Your task to perform on an android device: turn off sleep mode Image 0: 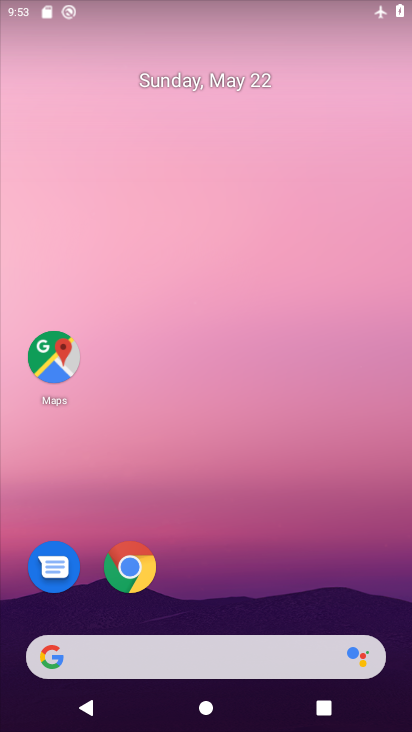
Step 0: press home button
Your task to perform on an android device: turn off sleep mode Image 1: 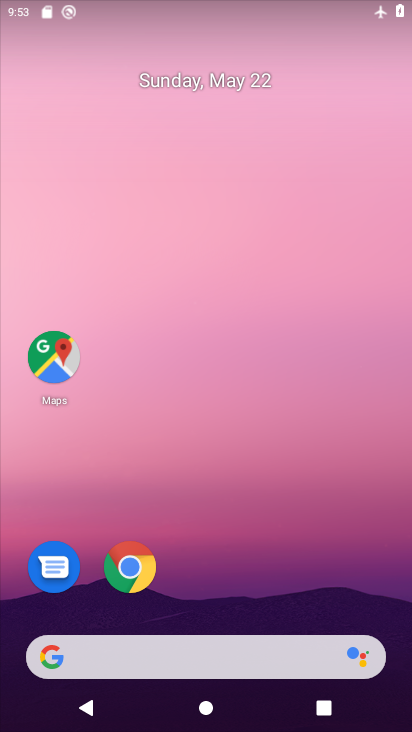
Step 1: drag from (215, 618) to (204, 51)
Your task to perform on an android device: turn off sleep mode Image 2: 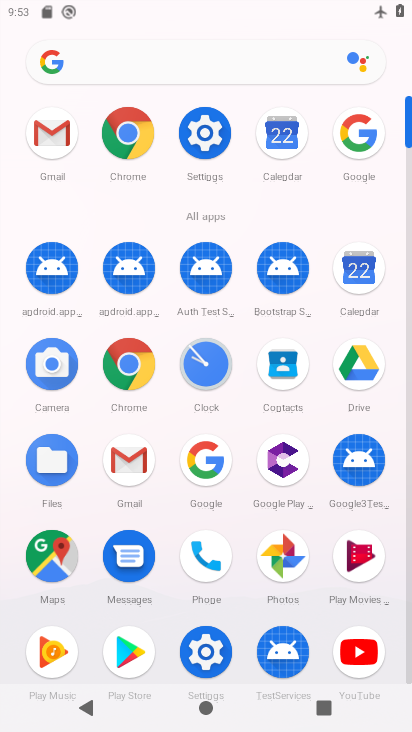
Step 2: click (203, 127)
Your task to perform on an android device: turn off sleep mode Image 3: 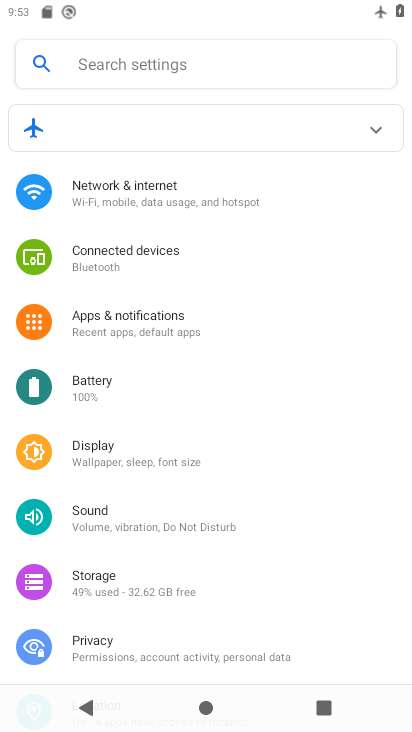
Step 3: click (133, 443)
Your task to perform on an android device: turn off sleep mode Image 4: 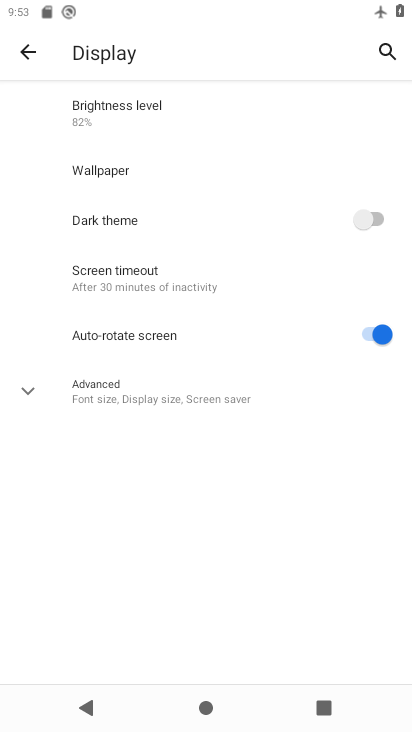
Step 4: click (31, 384)
Your task to perform on an android device: turn off sleep mode Image 5: 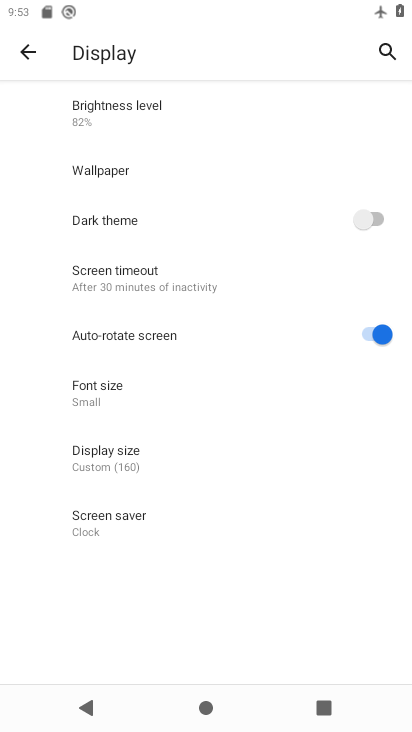
Step 5: task complete